Your task to perform on an android device: Open Chrome and go to settings Image 0: 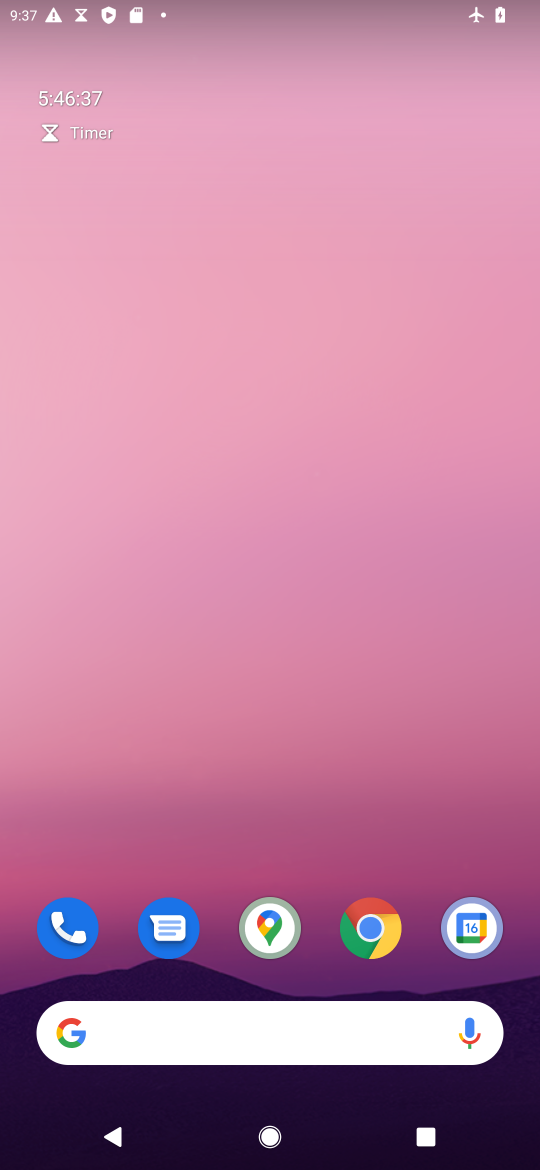
Step 0: press home button
Your task to perform on an android device: Open Chrome and go to settings Image 1: 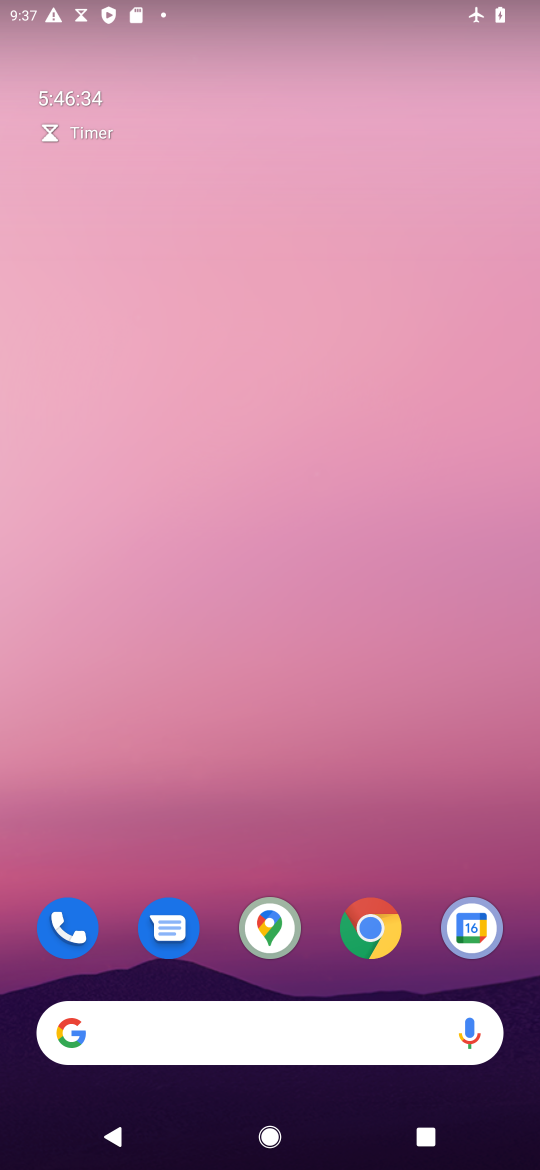
Step 1: click (377, 926)
Your task to perform on an android device: Open Chrome and go to settings Image 2: 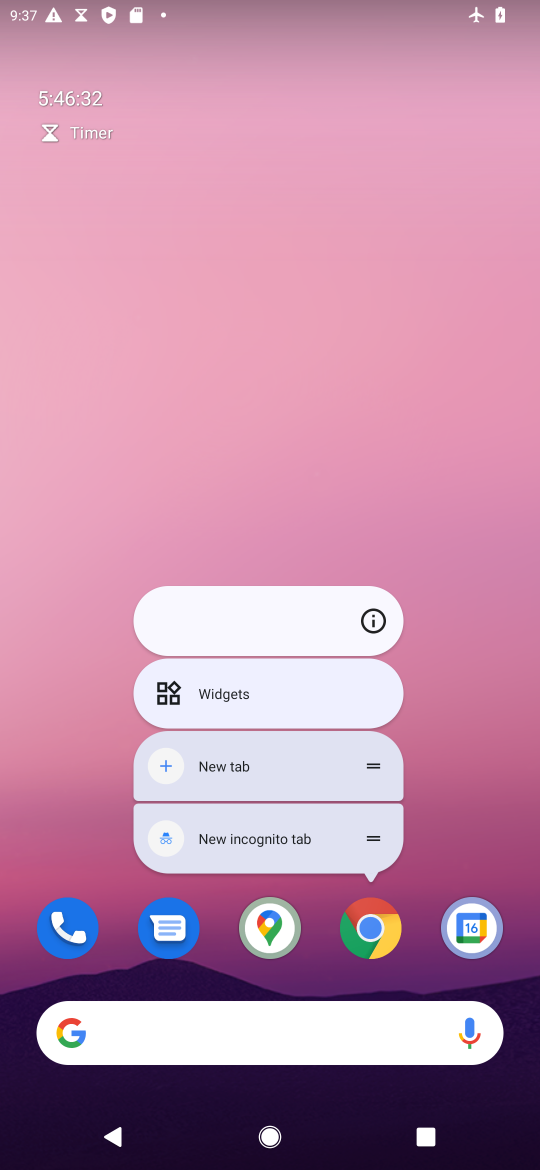
Step 2: click (394, 908)
Your task to perform on an android device: Open Chrome and go to settings Image 3: 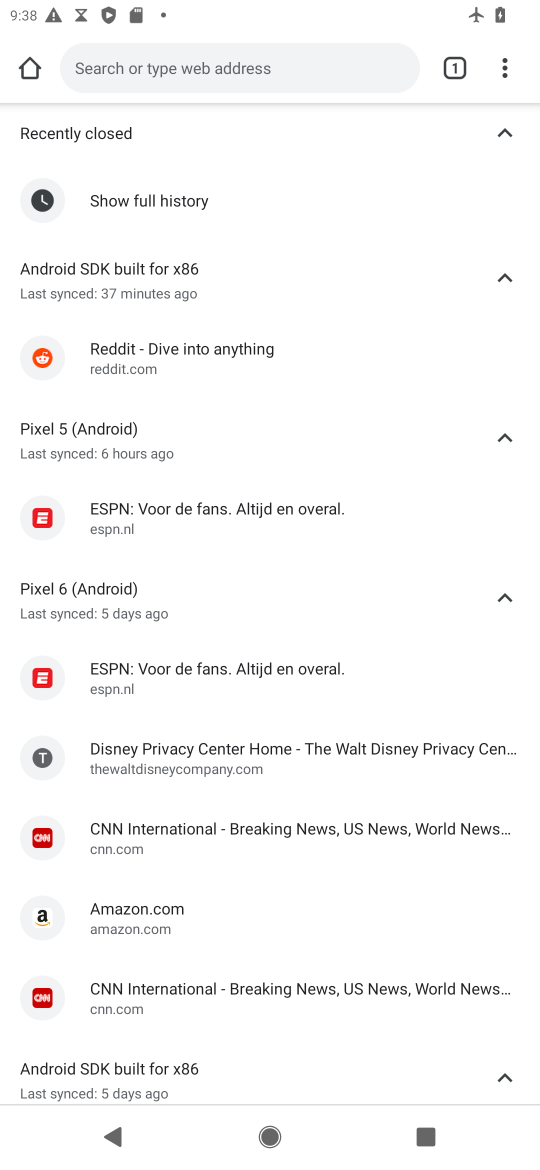
Step 3: task complete